Your task to perform on an android device: add a label to a message in the gmail app Image 0: 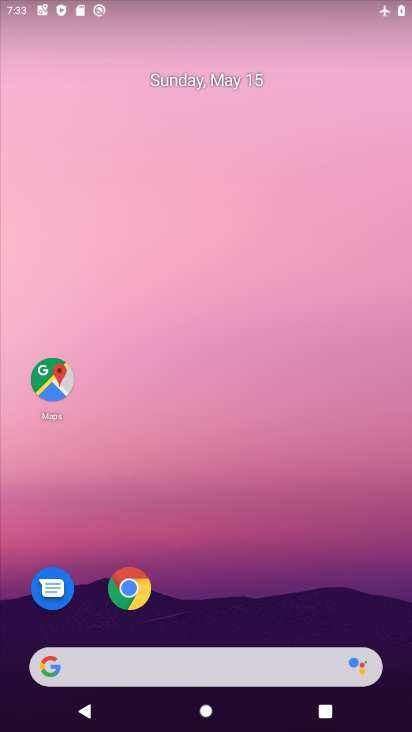
Step 0: drag from (361, 643) to (219, 72)
Your task to perform on an android device: add a label to a message in the gmail app Image 1: 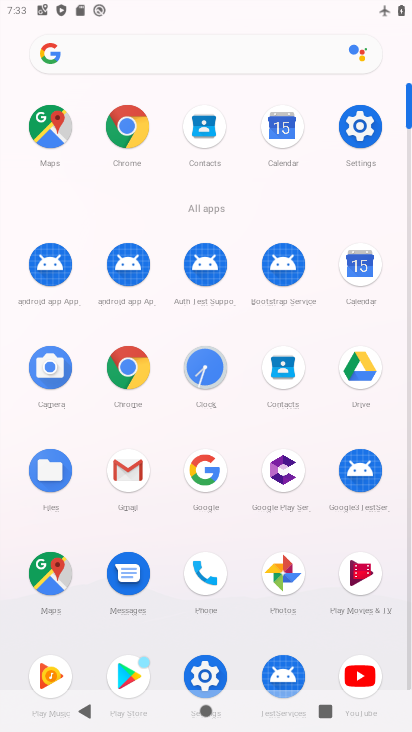
Step 1: click (134, 479)
Your task to perform on an android device: add a label to a message in the gmail app Image 2: 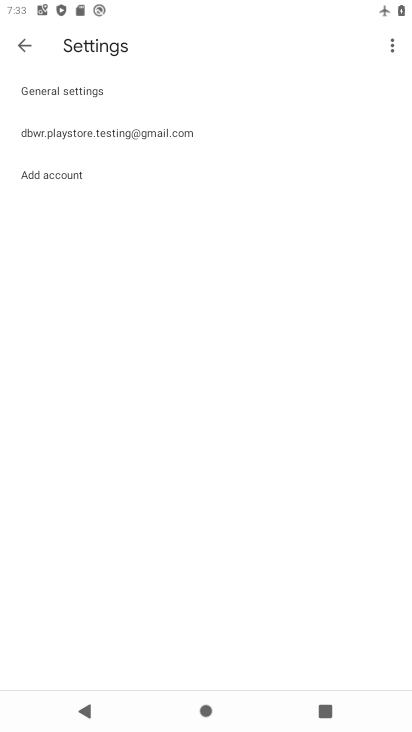
Step 2: press back button
Your task to perform on an android device: add a label to a message in the gmail app Image 3: 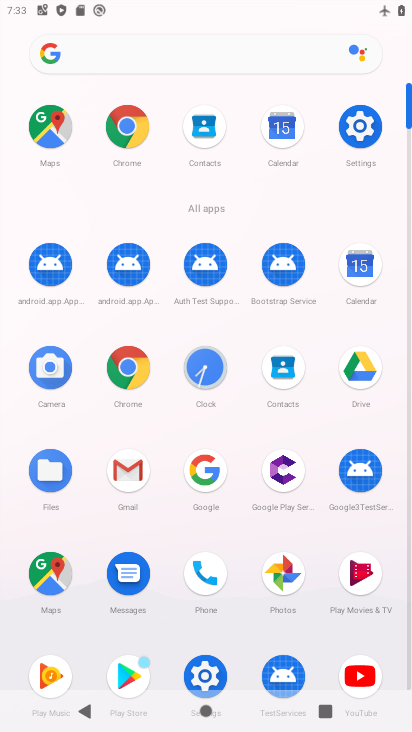
Step 3: click (108, 483)
Your task to perform on an android device: add a label to a message in the gmail app Image 4: 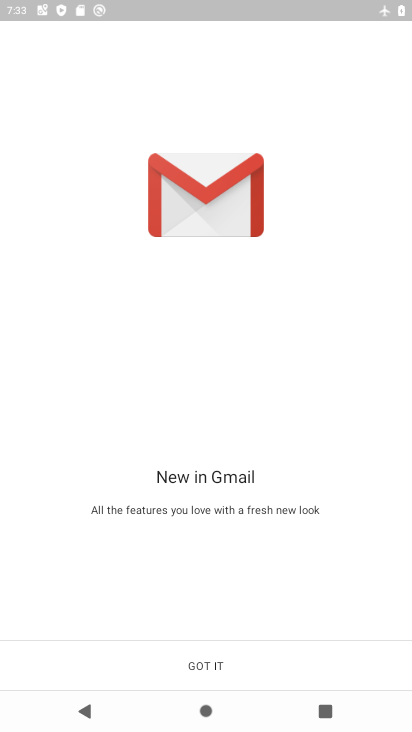
Step 4: click (199, 665)
Your task to perform on an android device: add a label to a message in the gmail app Image 5: 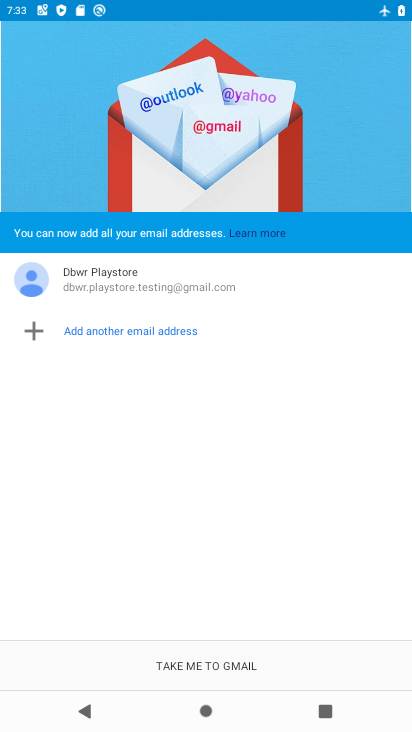
Step 5: click (199, 665)
Your task to perform on an android device: add a label to a message in the gmail app Image 6: 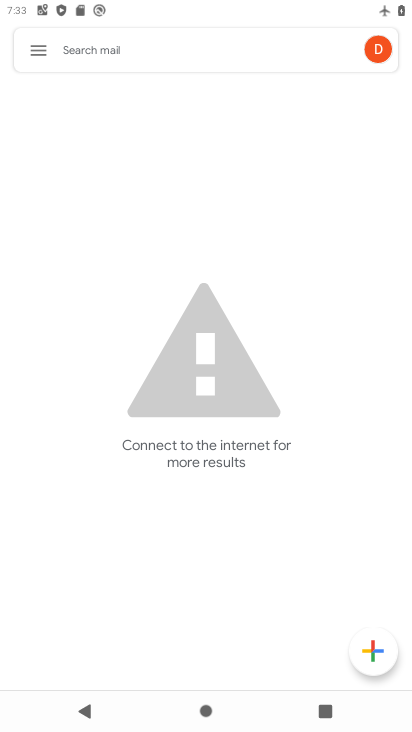
Step 6: task complete